Your task to perform on an android device: Open my contact list Image 0: 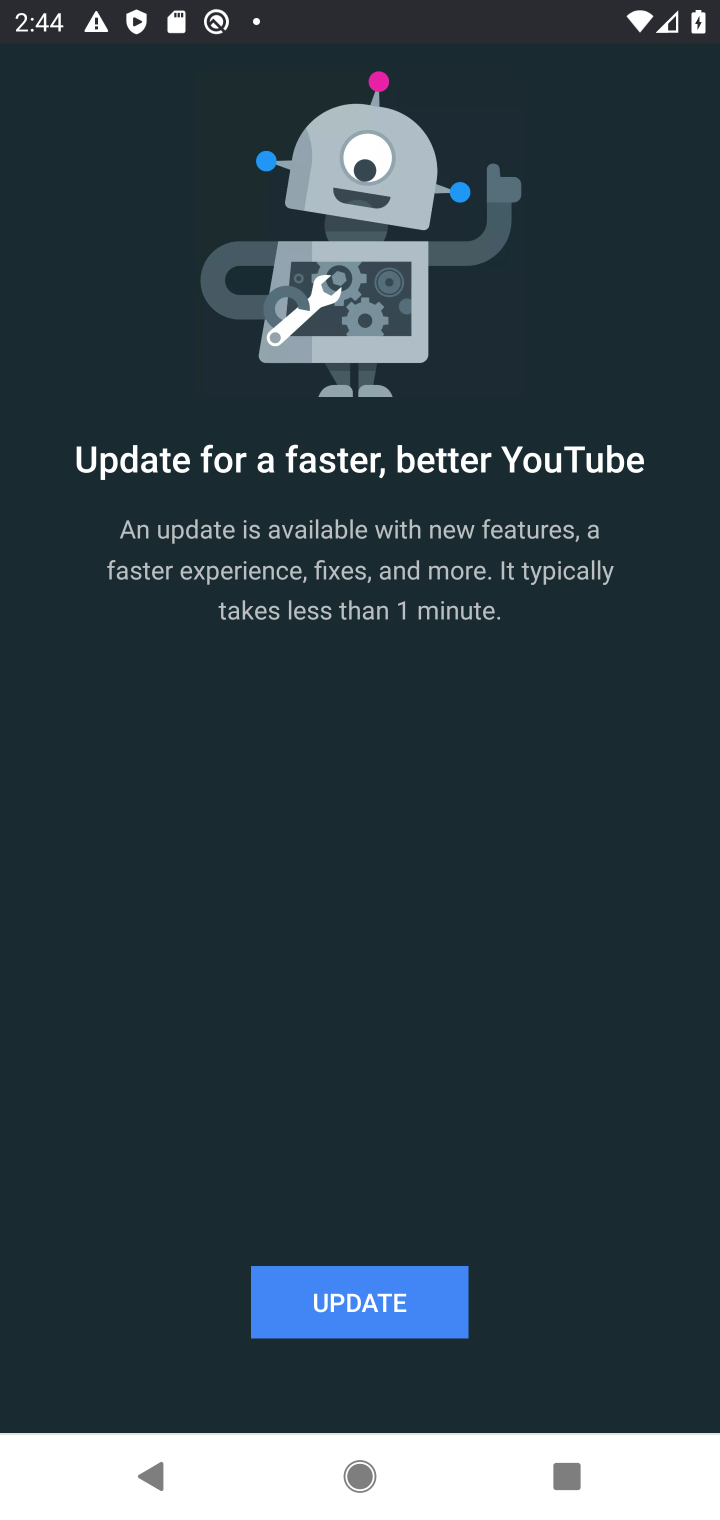
Step 0: drag from (187, 1192) to (328, 756)
Your task to perform on an android device: Open my contact list Image 1: 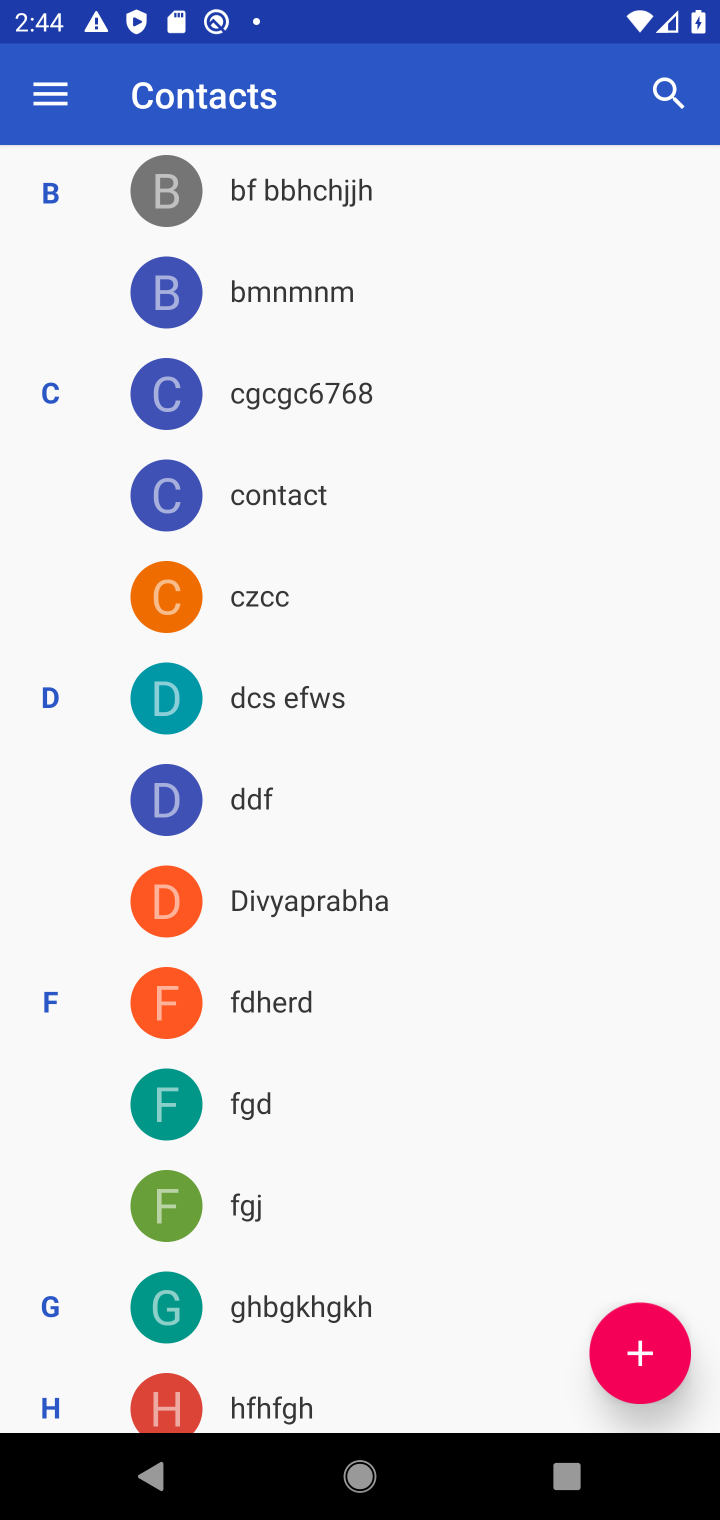
Step 1: press home button
Your task to perform on an android device: Open my contact list Image 2: 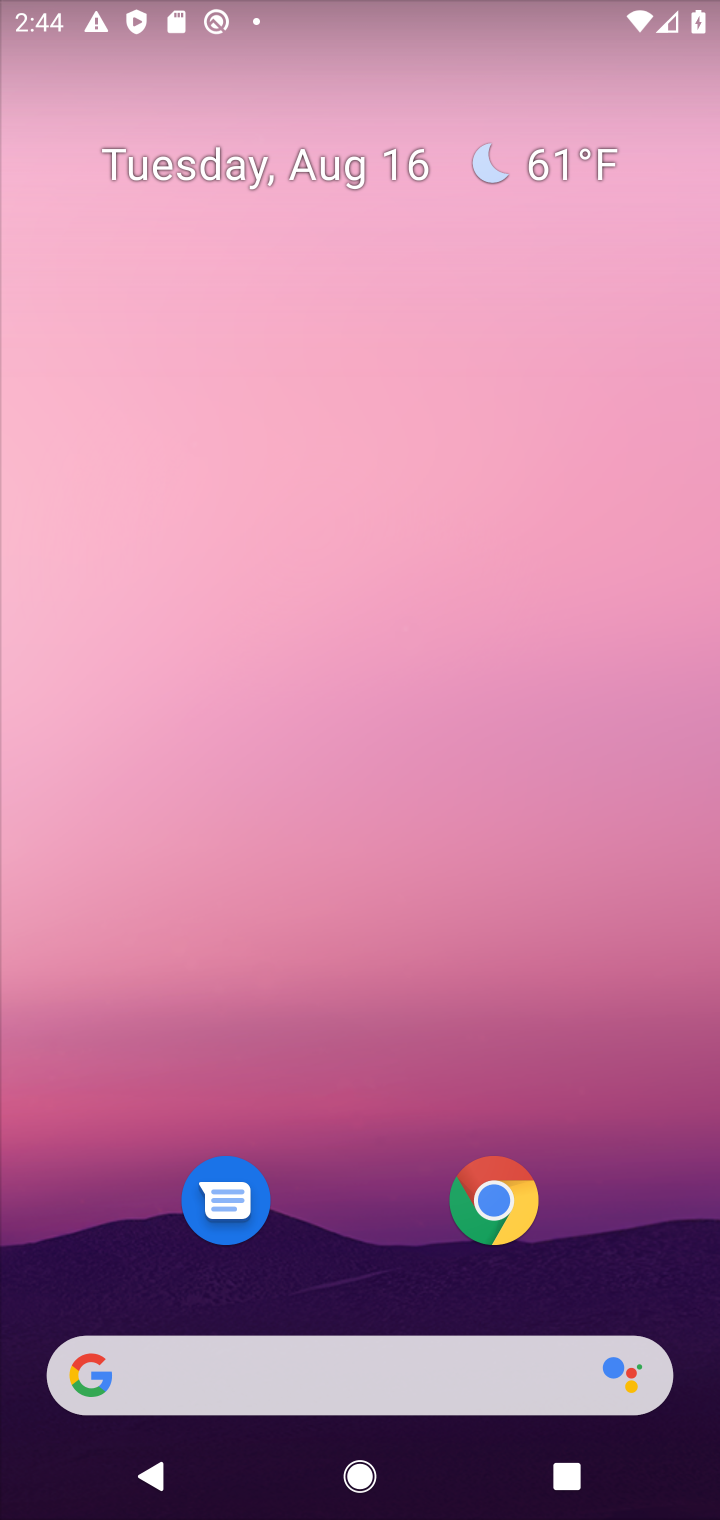
Step 2: drag from (54, 1480) to (336, 892)
Your task to perform on an android device: Open my contact list Image 3: 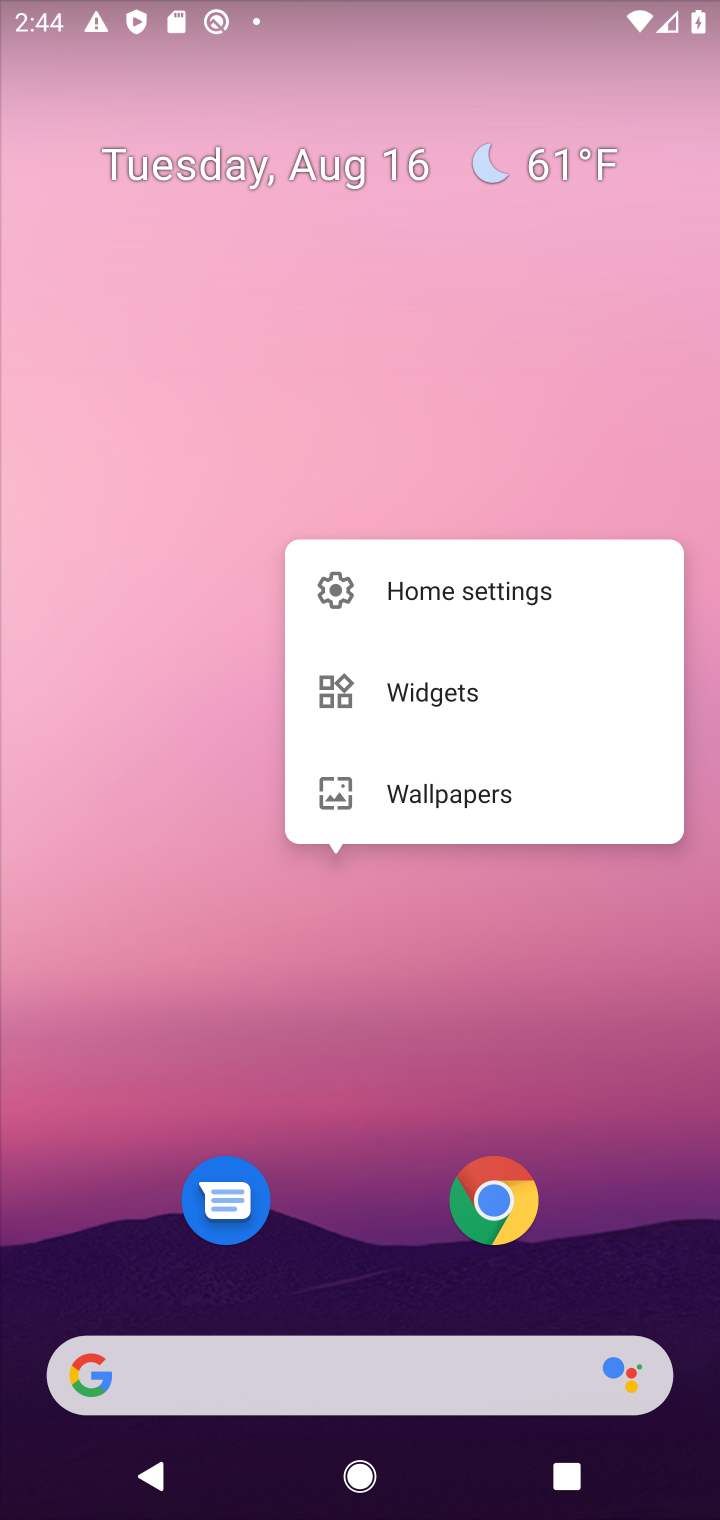
Step 3: click (20, 1429)
Your task to perform on an android device: Open my contact list Image 4: 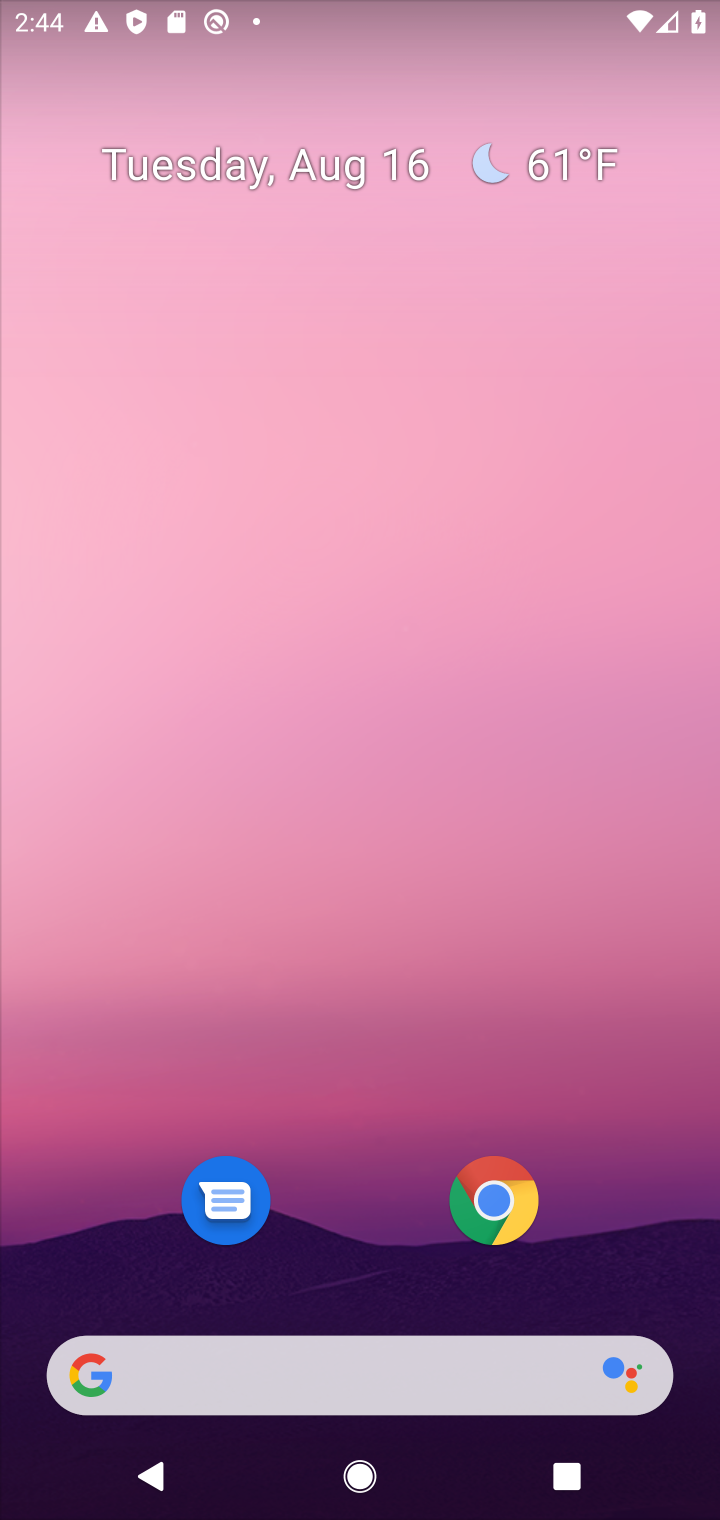
Step 4: drag from (96, 1417) to (345, 783)
Your task to perform on an android device: Open my contact list Image 5: 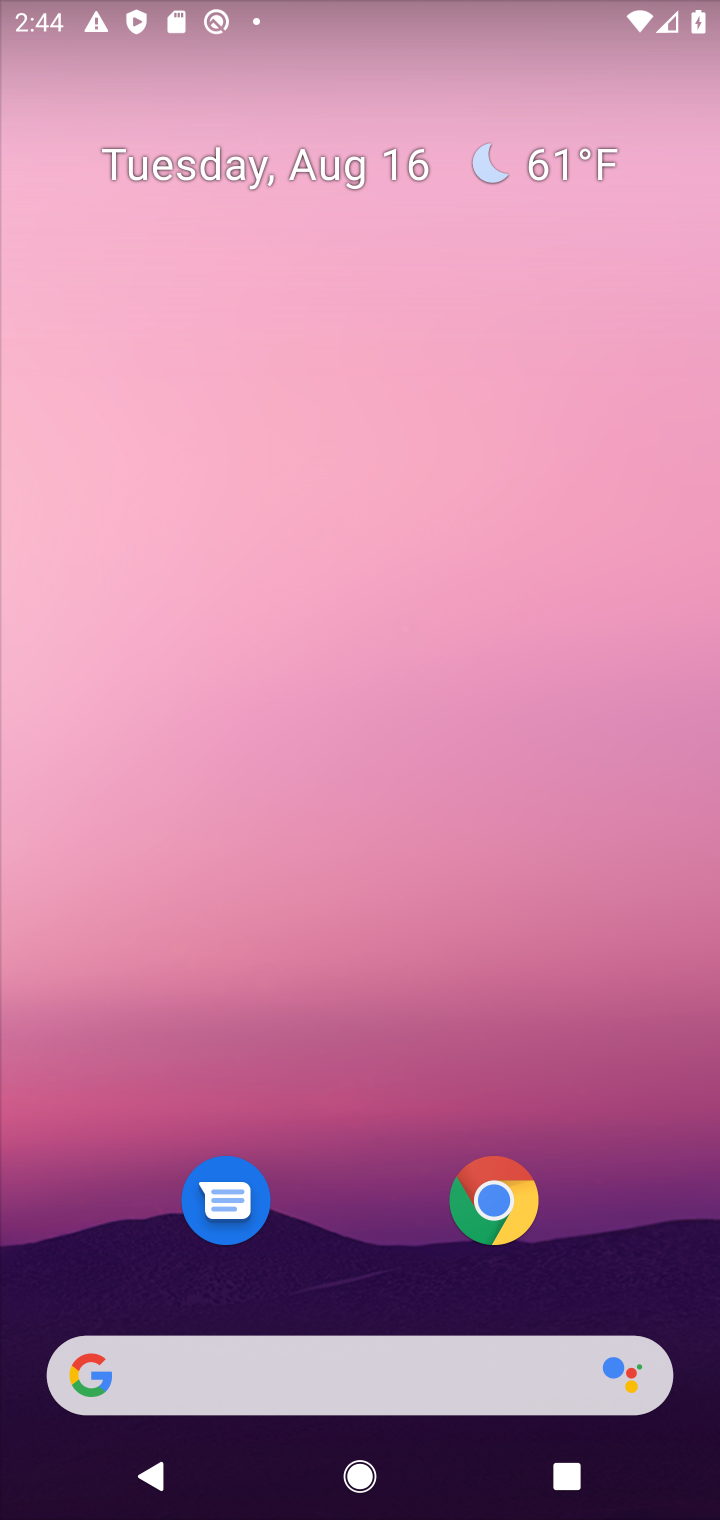
Step 5: drag from (32, 1318) to (239, 637)
Your task to perform on an android device: Open my contact list Image 6: 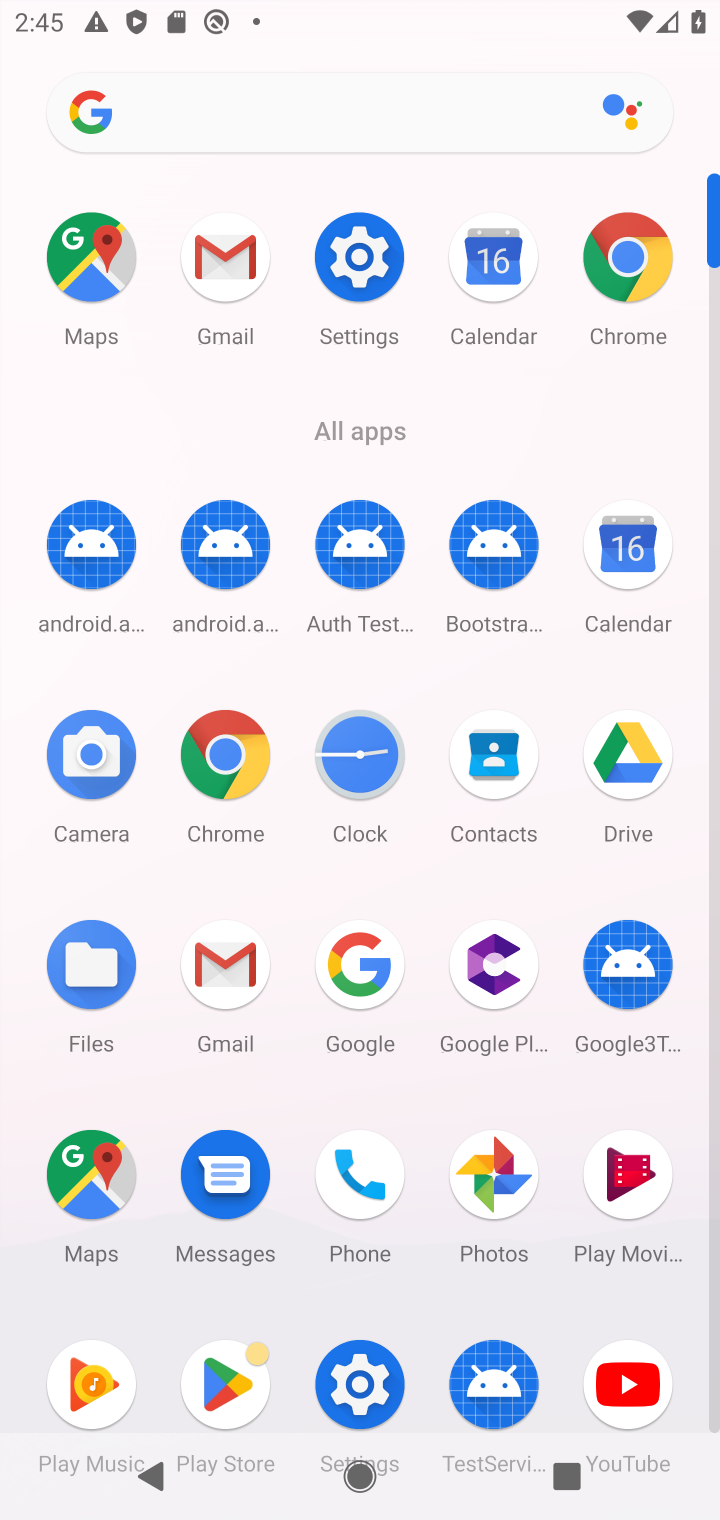
Step 6: click (366, 1171)
Your task to perform on an android device: Open my contact list Image 7: 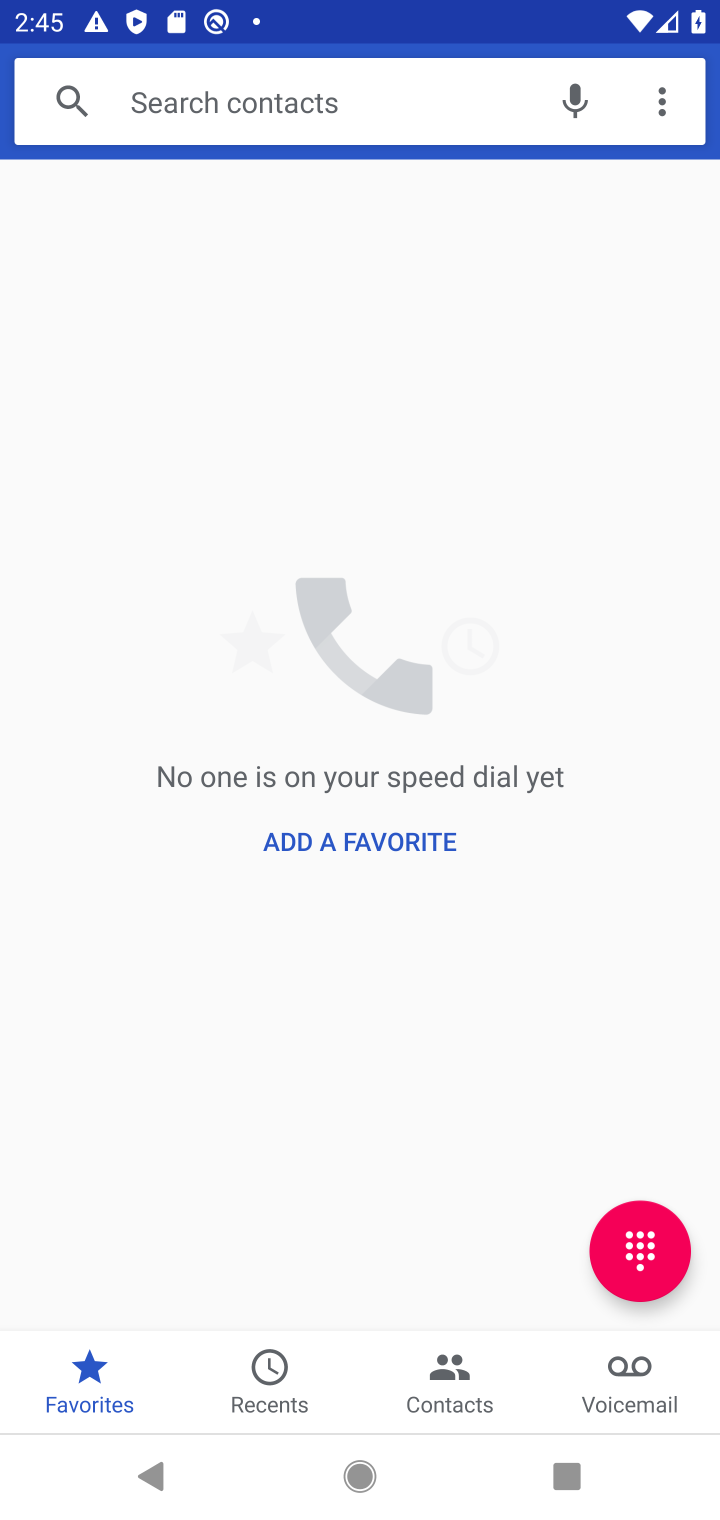
Step 7: click (436, 1368)
Your task to perform on an android device: Open my contact list Image 8: 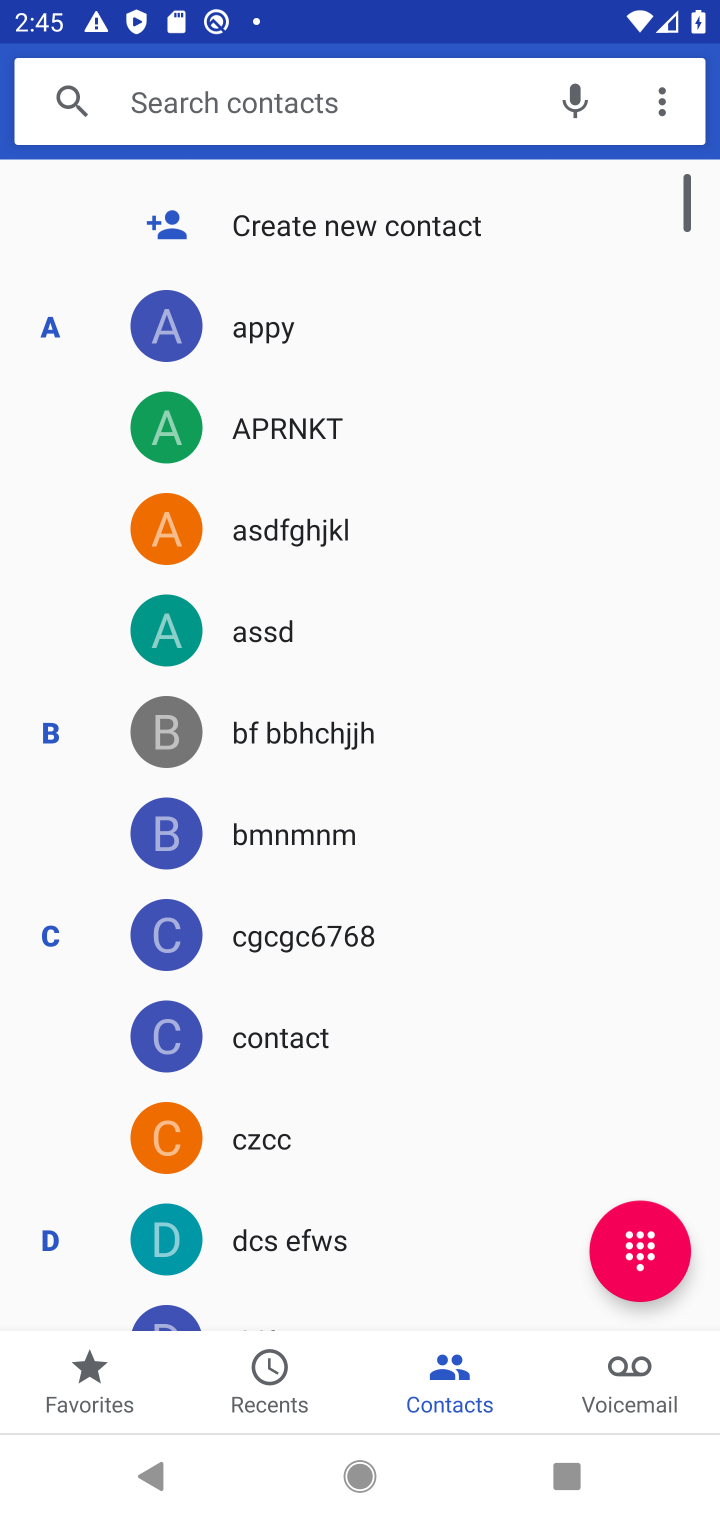
Step 8: click (322, 217)
Your task to perform on an android device: Open my contact list Image 9: 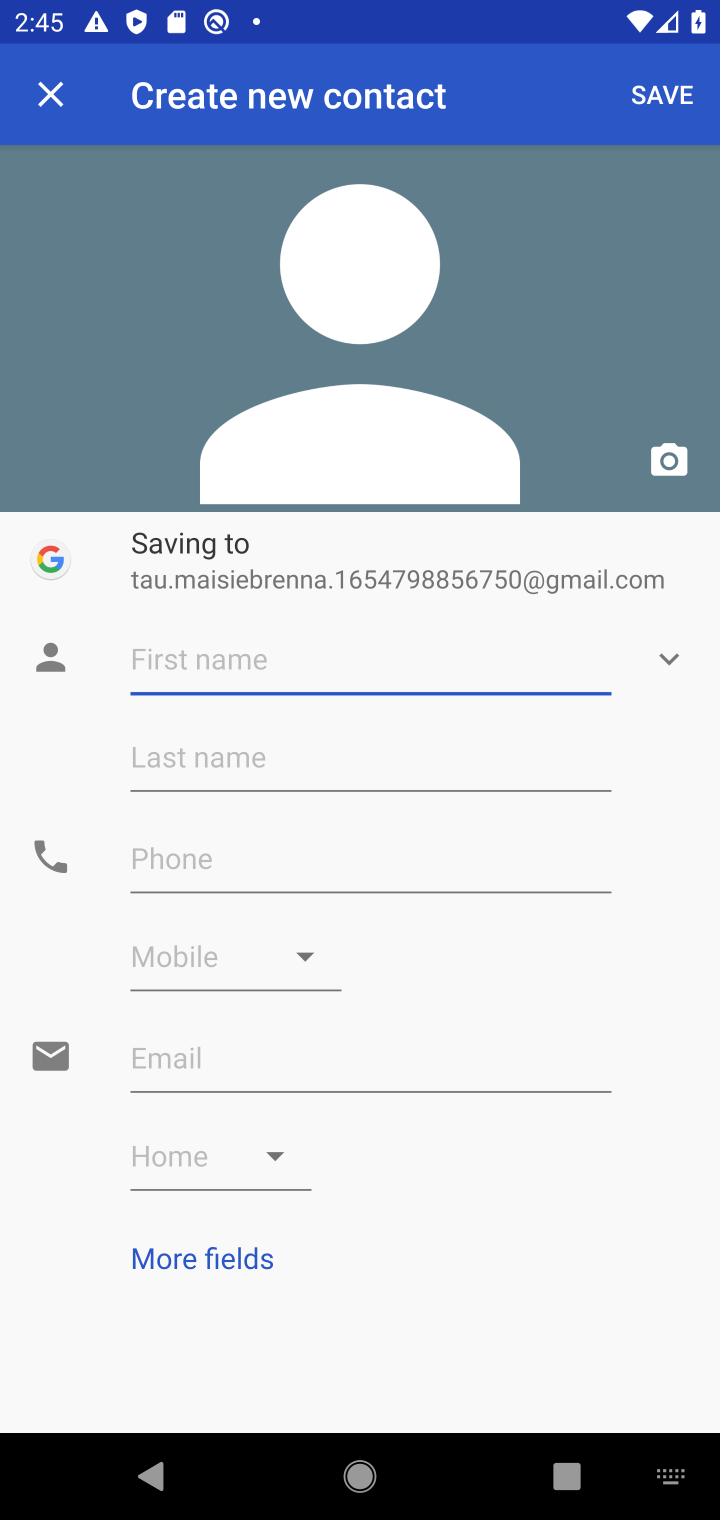
Step 9: type "sfgeth"
Your task to perform on an android device: Open my contact list Image 10: 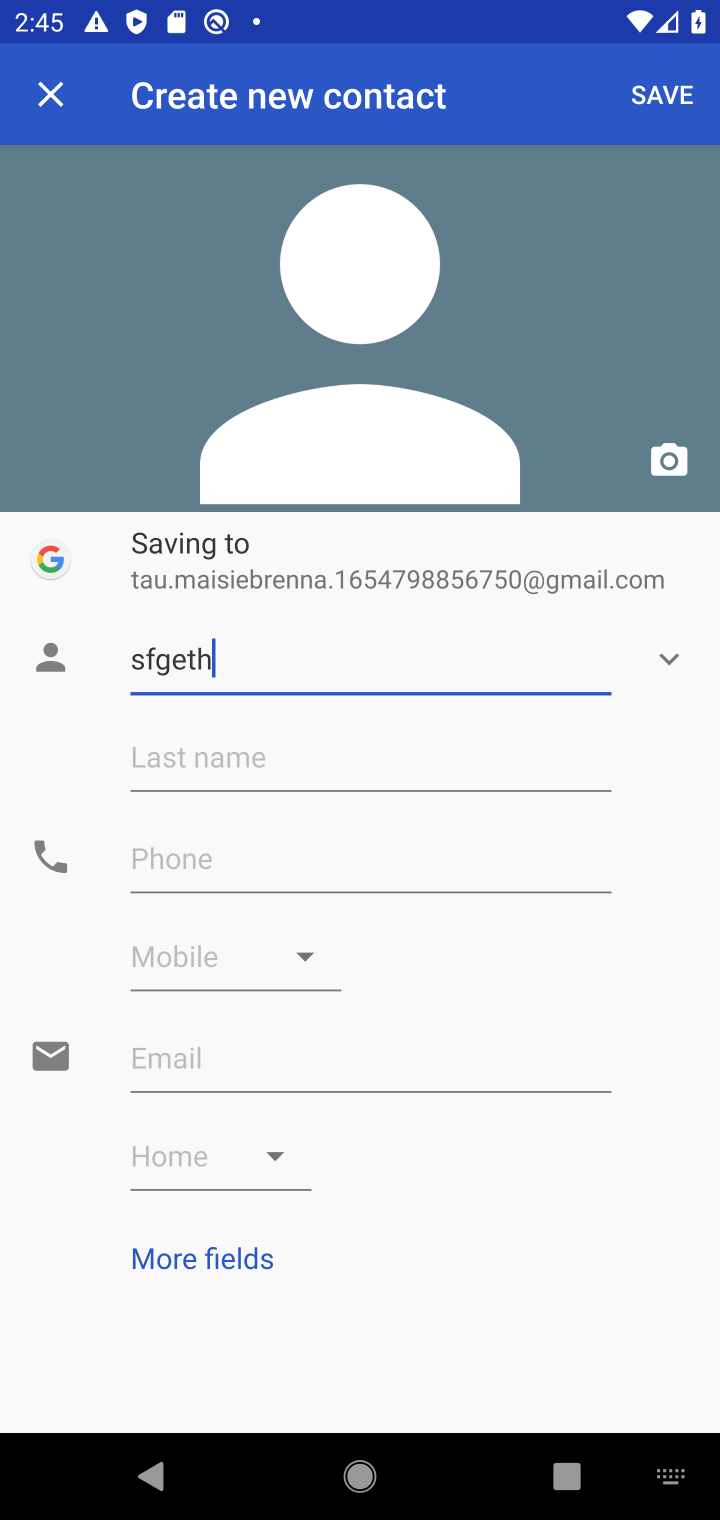
Step 10: click (669, 88)
Your task to perform on an android device: Open my contact list Image 11: 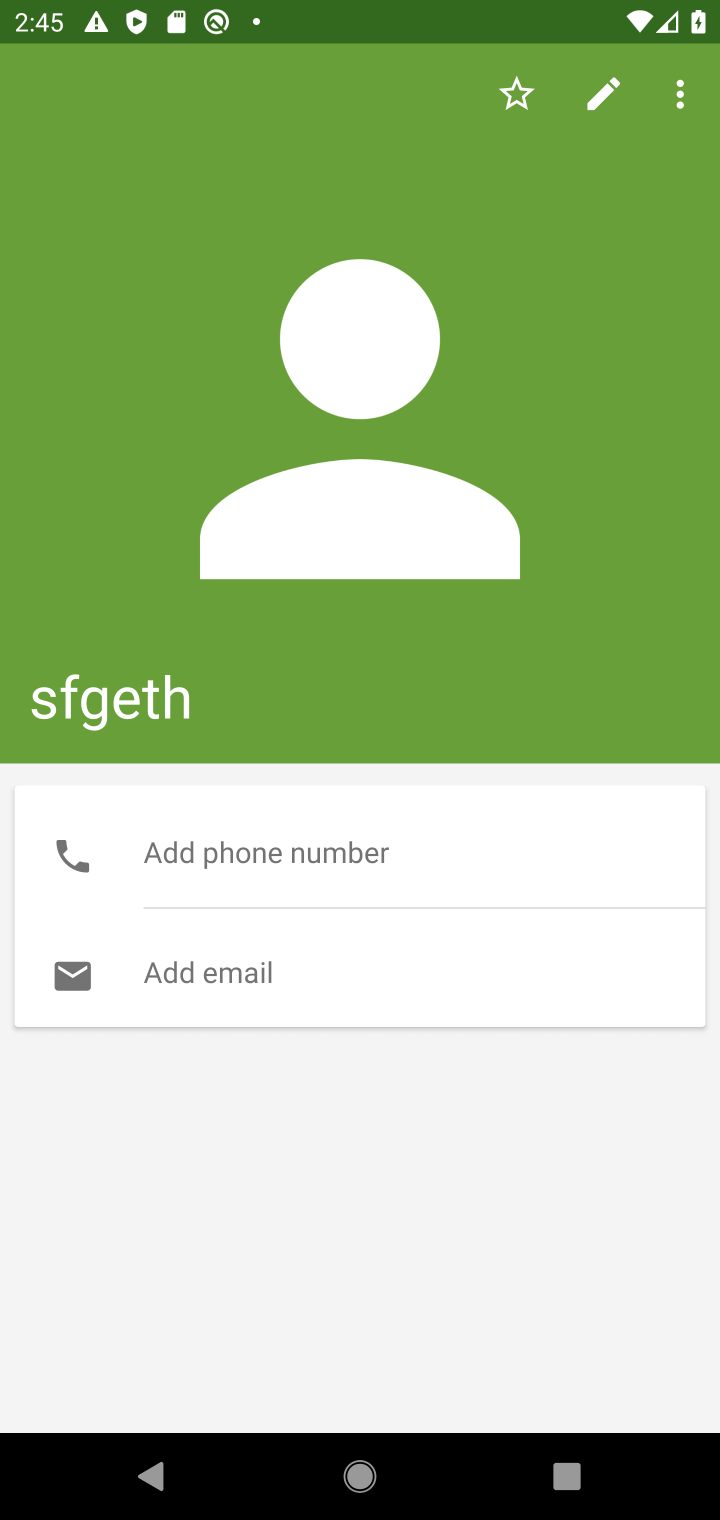
Step 11: task complete